Your task to perform on an android device: Go to Amazon Image 0: 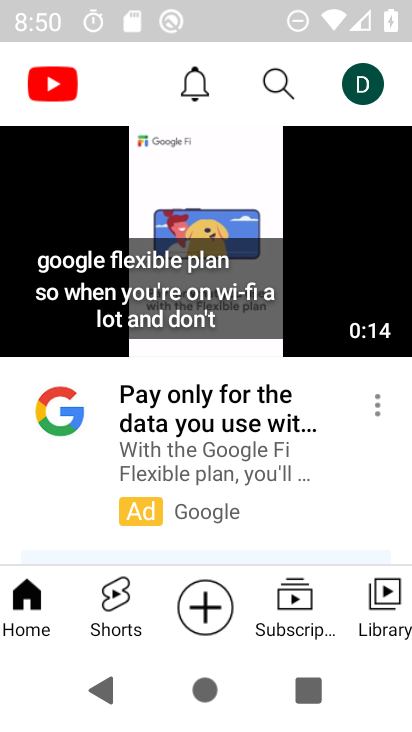
Step 0: press home button
Your task to perform on an android device: Go to Amazon Image 1: 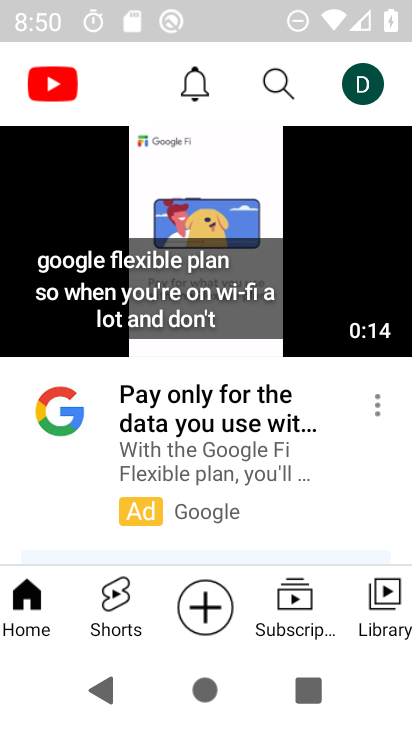
Step 1: press home button
Your task to perform on an android device: Go to Amazon Image 2: 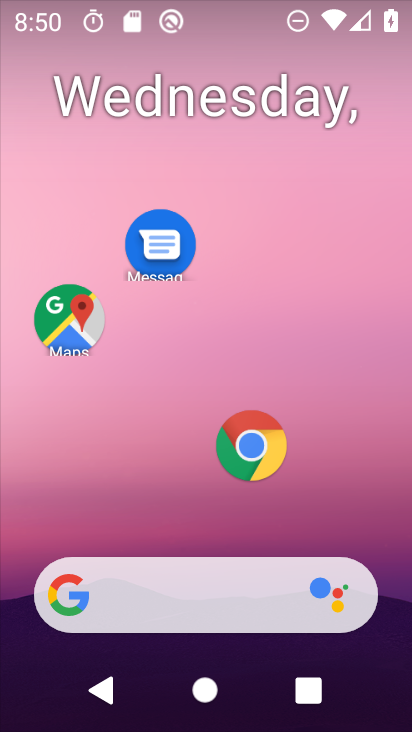
Step 2: click (240, 446)
Your task to perform on an android device: Go to Amazon Image 3: 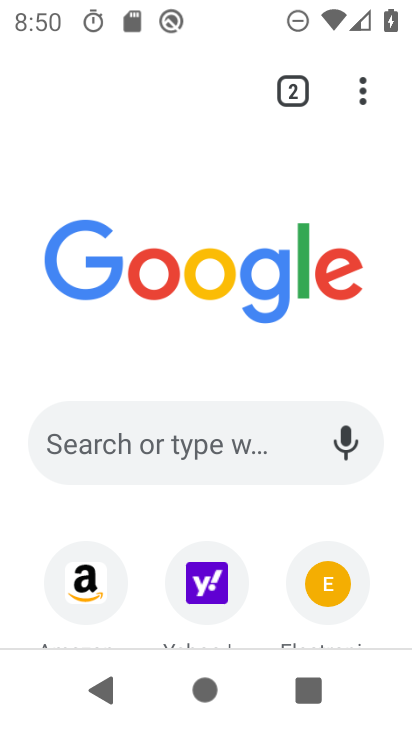
Step 3: click (77, 579)
Your task to perform on an android device: Go to Amazon Image 4: 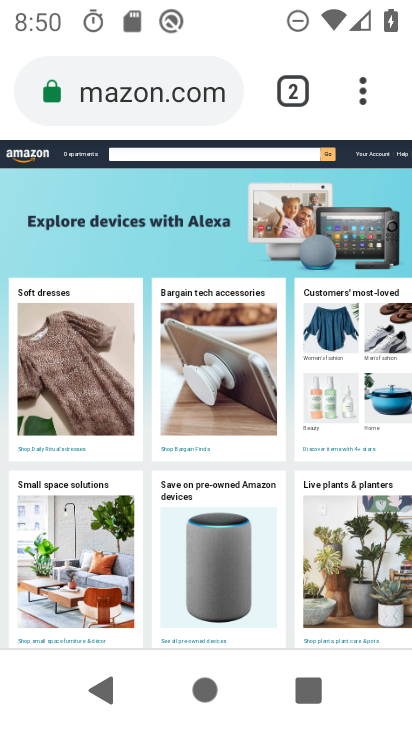
Step 4: task complete